Your task to perform on an android device: Open wifi settings Image 0: 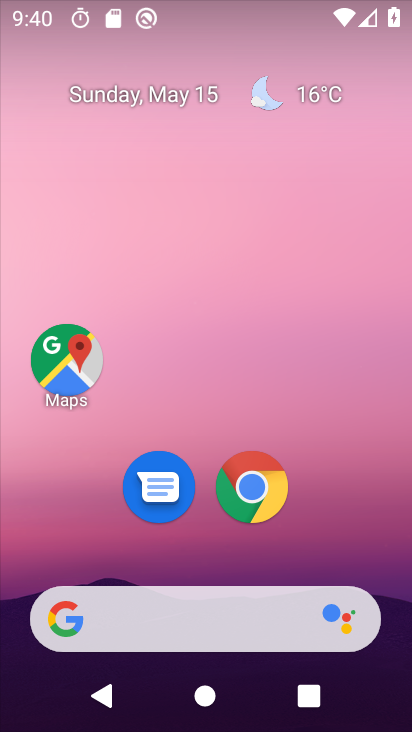
Step 0: drag from (385, 537) to (376, 101)
Your task to perform on an android device: Open wifi settings Image 1: 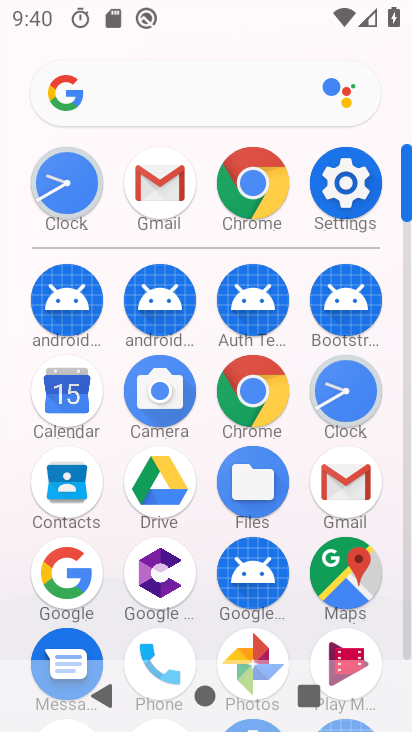
Step 1: click (339, 169)
Your task to perform on an android device: Open wifi settings Image 2: 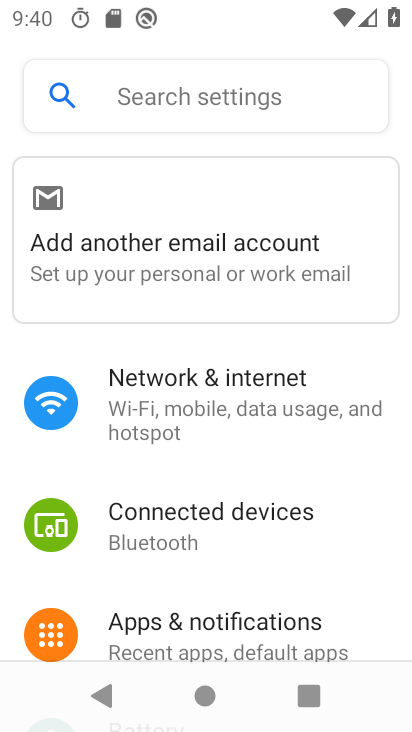
Step 2: drag from (335, 511) to (332, 208)
Your task to perform on an android device: Open wifi settings Image 3: 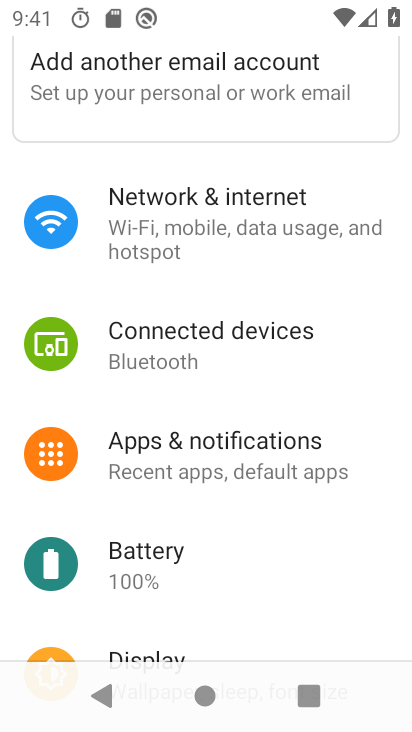
Step 3: drag from (315, 523) to (256, 188)
Your task to perform on an android device: Open wifi settings Image 4: 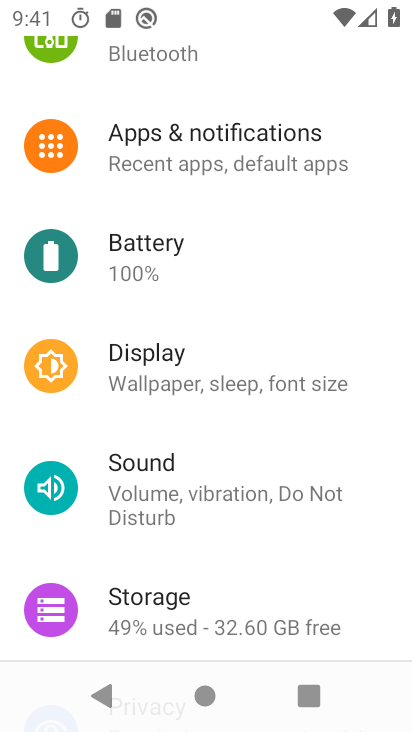
Step 4: drag from (256, 270) to (289, 608)
Your task to perform on an android device: Open wifi settings Image 5: 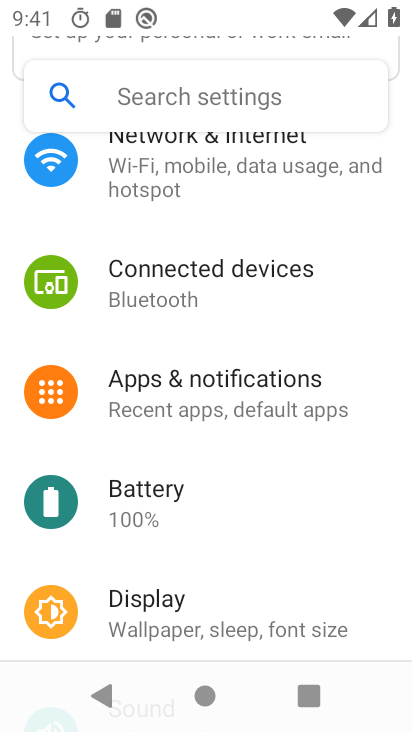
Step 5: drag from (270, 250) to (271, 527)
Your task to perform on an android device: Open wifi settings Image 6: 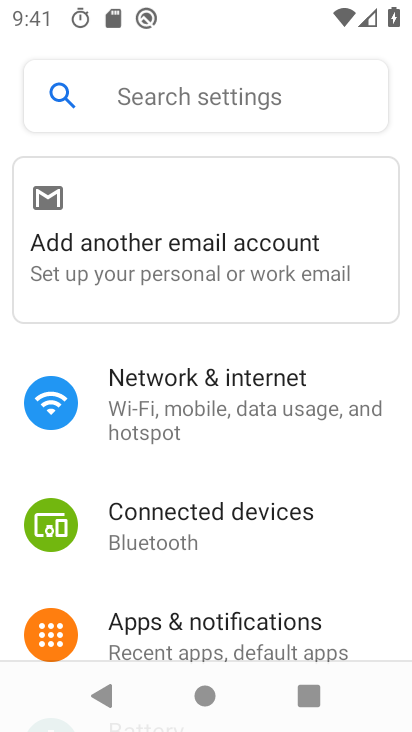
Step 6: click (262, 396)
Your task to perform on an android device: Open wifi settings Image 7: 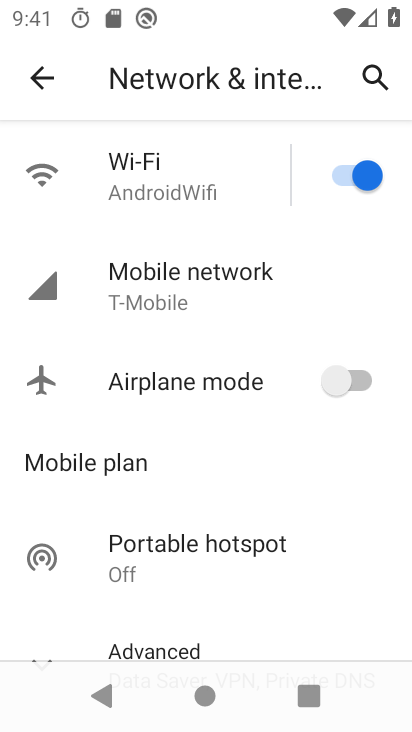
Step 7: task complete